Your task to perform on an android device: uninstall "HBO Max: Stream TV & Movies" Image 0: 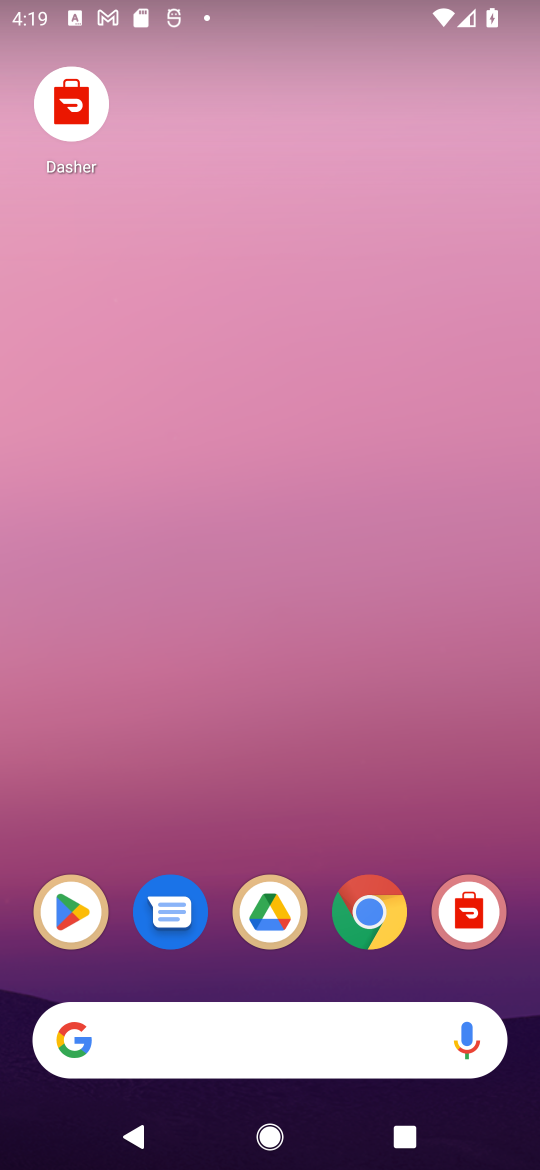
Step 0: click (77, 927)
Your task to perform on an android device: uninstall "HBO Max: Stream TV & Movies" Image 1: 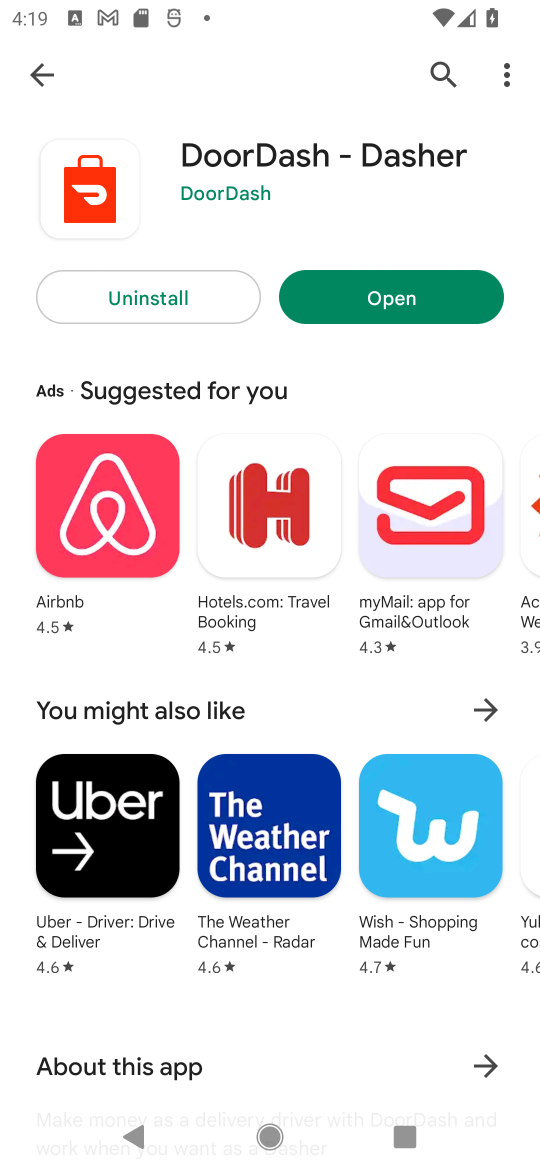
Step 1: click (434, 69)
Your task to perform on an android device: uninstall "HBO Max: Stream TV & Movies" Image 2: 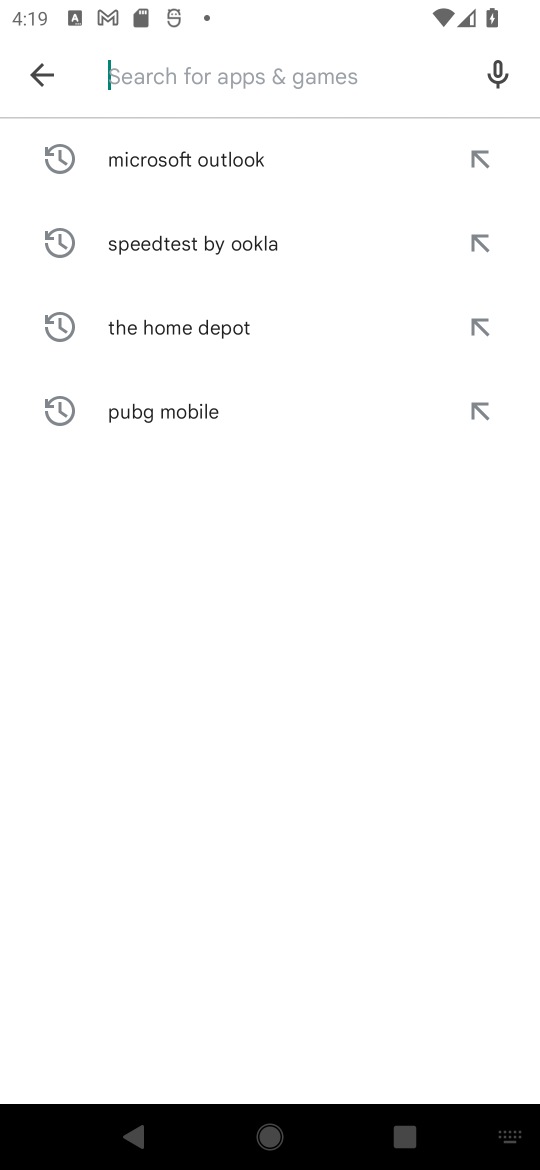
Step 2: click (362, 95)
Your task to perform on an android device: uninstall "HBO Max: Stream TV & Movies" Image 3: 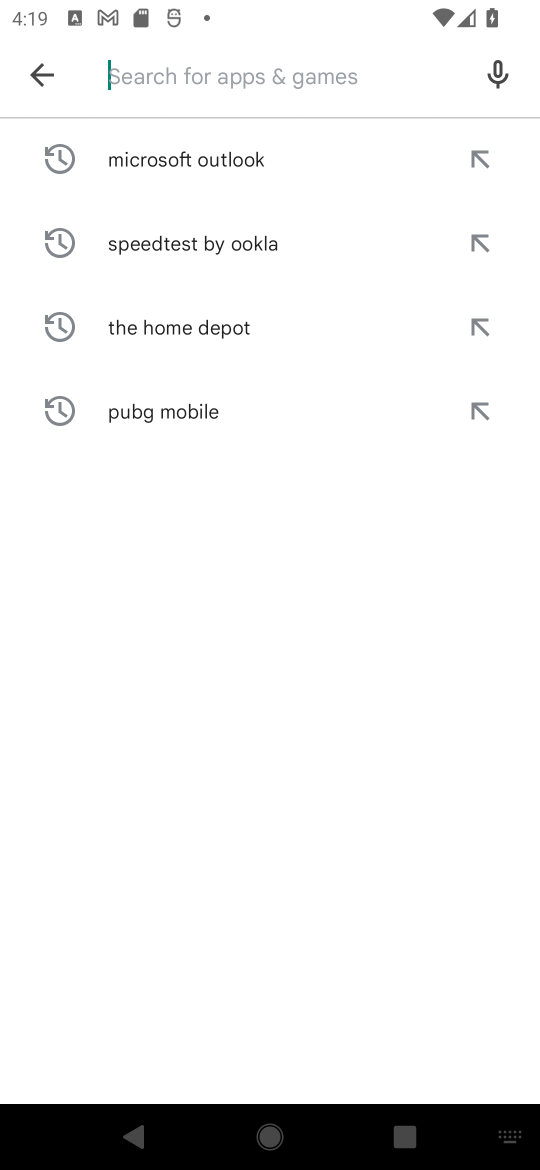
Step 3: type "HBO Max: Stream TV & Movies"
Your task to perform on an android device: uninstall "HBO Max: Stream TV & Movies" Image 4: 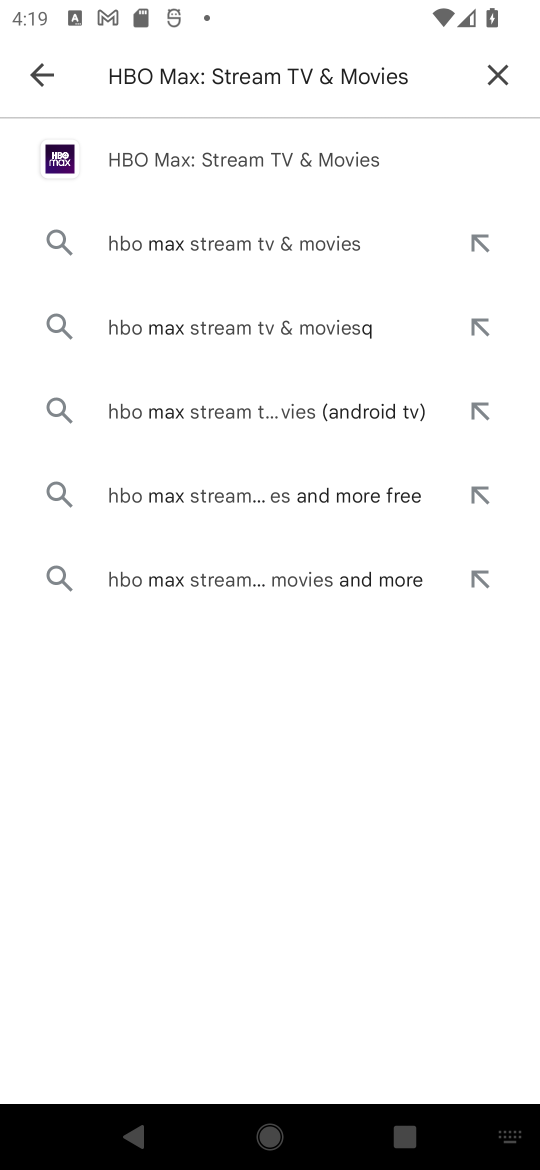
Step 4: click (254, 176)
Your task to perform on an android device: uninstall "HBO Max: Stream TV & Movies" Image 5: 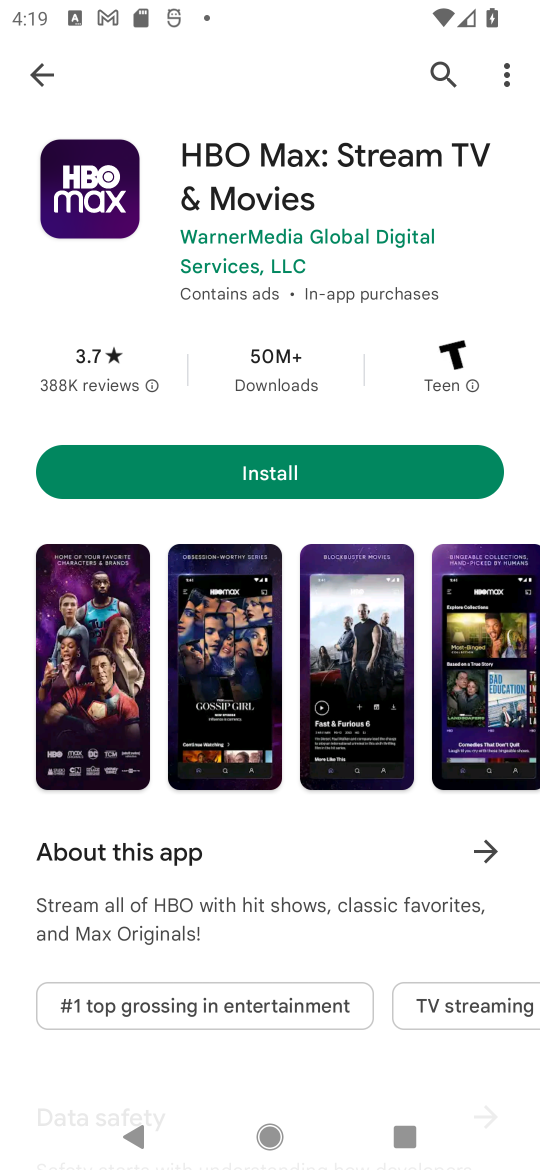
Step 5: task complete